Your task to perform on an android device: Go to accessibility settings Image 0: 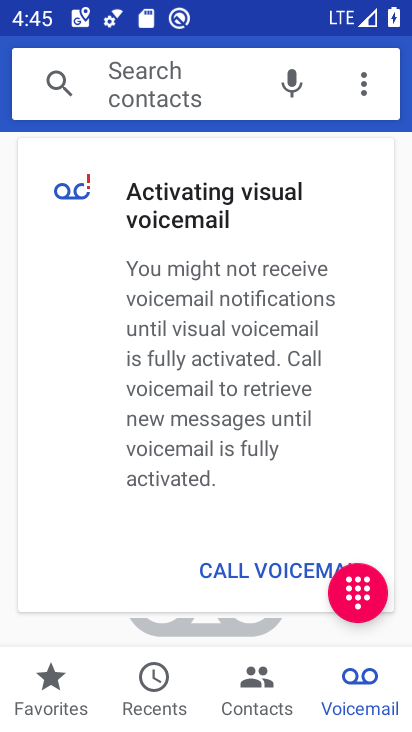
Step 0: press home button
Your task to perform on an android device: Go to accessibility settings Image 1: 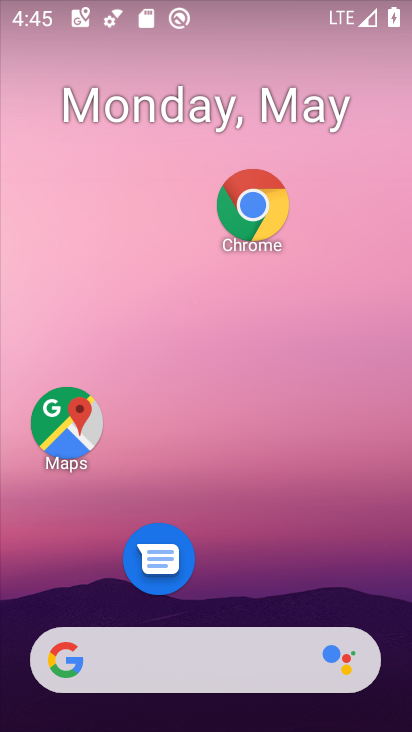
Step 1: drag from (226, 584) to (332, 149)
Your task to perform on an android device: Go to accessibility settings Image 2: 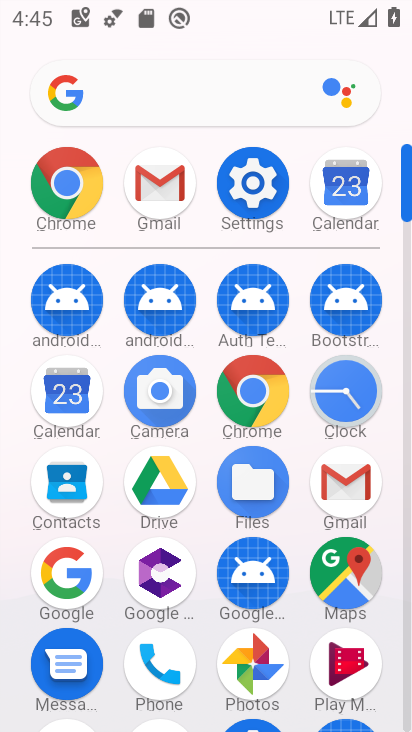
Step 2: click (263, 188)
Your task to perform on an android device: Go to accessibility settings Image 3: 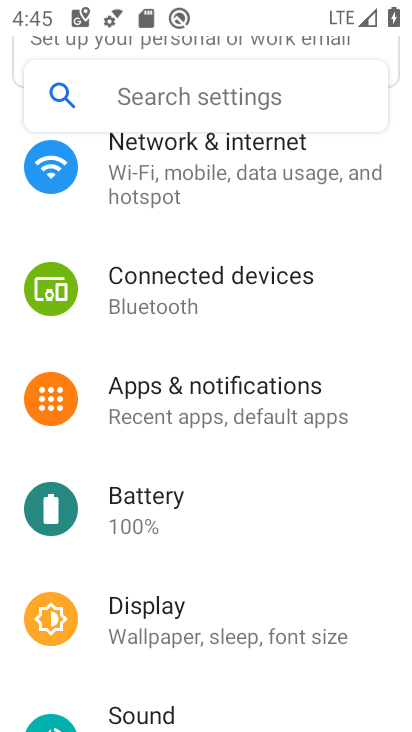
Step 3: drag from (183, 624) to (205, 221)
Your task to perform on an android device: Go to accessibility settings Image 4: 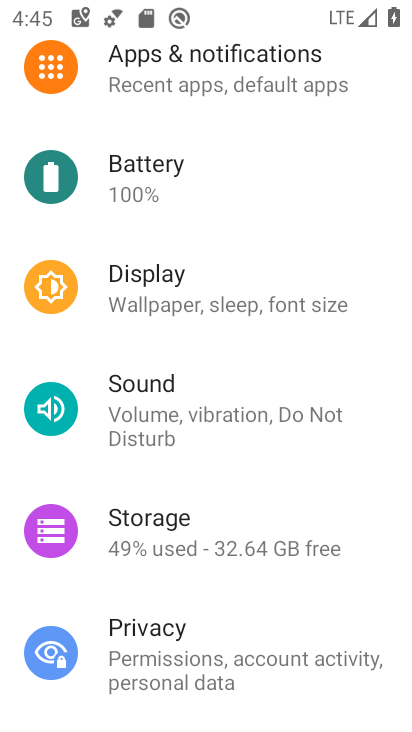
Step 4: drag from (167, 568) to (205, 241)
Your task to perform on an android device: Go to accessibility settings Image 5: 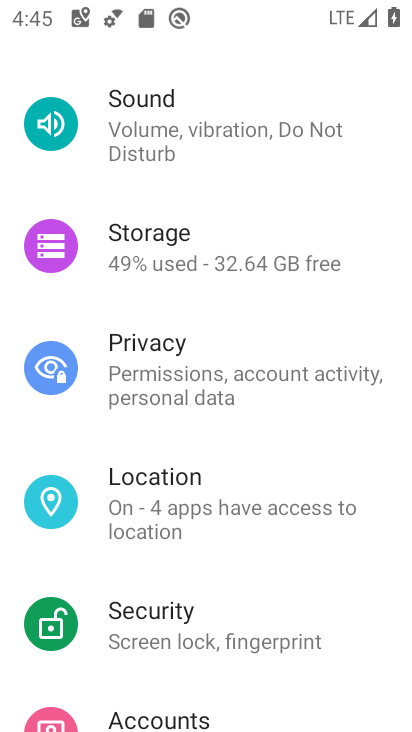
Step 5: drag from (200, 559) to (221, 246)
Your task to perform on an android device: Go to accessibility settings Image 6: 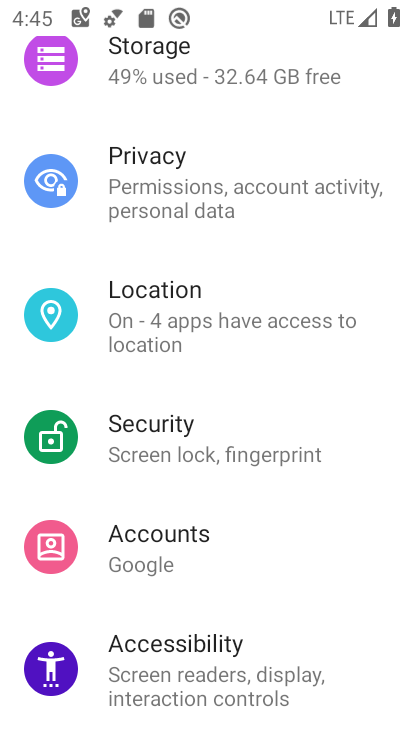
Step 6: click (174, 680)
Your task to perform on an android device: Go to accessibility settings Image 7: 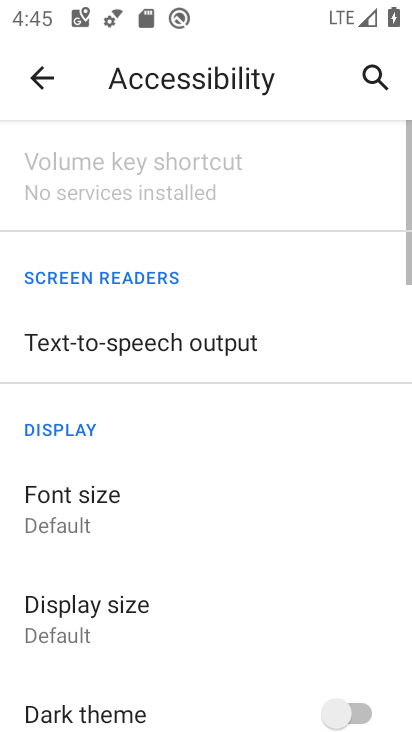
Step 7: task complete